Your task to perform on an android device: Add lg ultragear to the cart on ebay, then select checkout. Image 0: 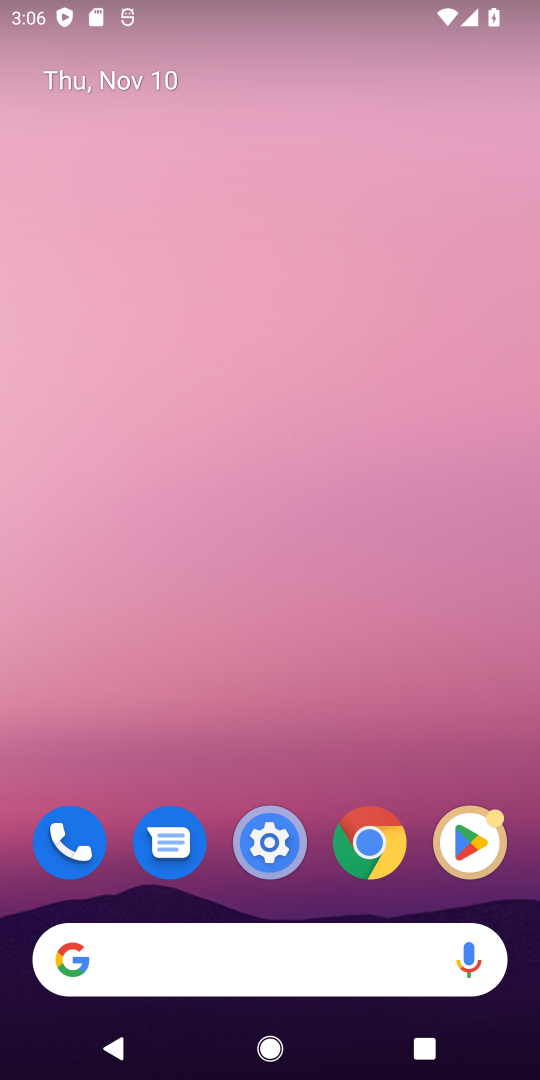
Step 0: click (156, 968)
Your task to perform on an android device: Add lg ultragear to the cart on ebay, then select checkout. Image 1: 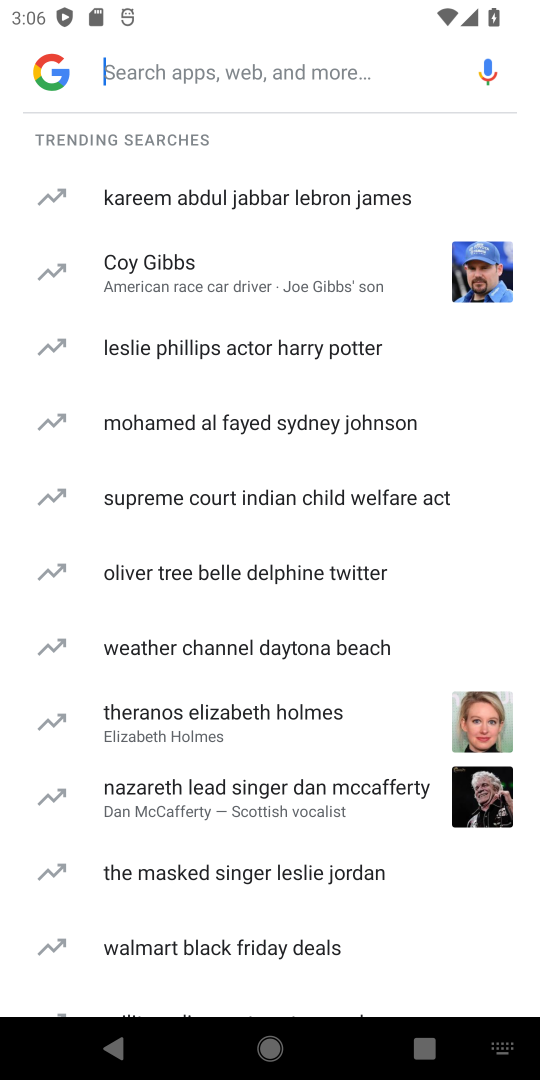
Step 1: type "ebay"
Your task to perform on an android device: Add lg ultragear to the cart on ebay, then select checkout. Image 2: 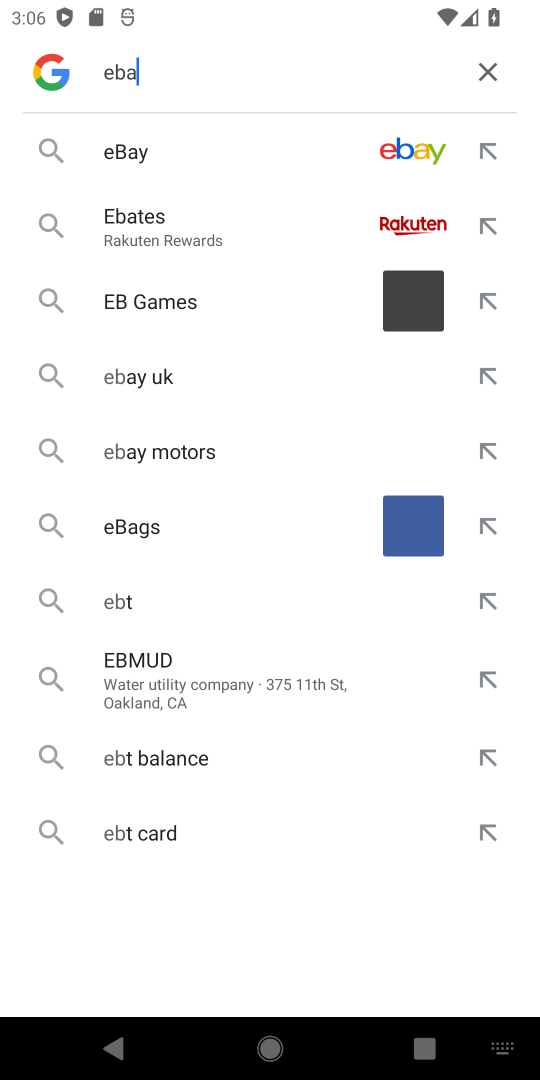
Step 2: press enter
Your task to perform on an android device: Add lg ultragear to the cart on ebay, then select checkout. Image 3: 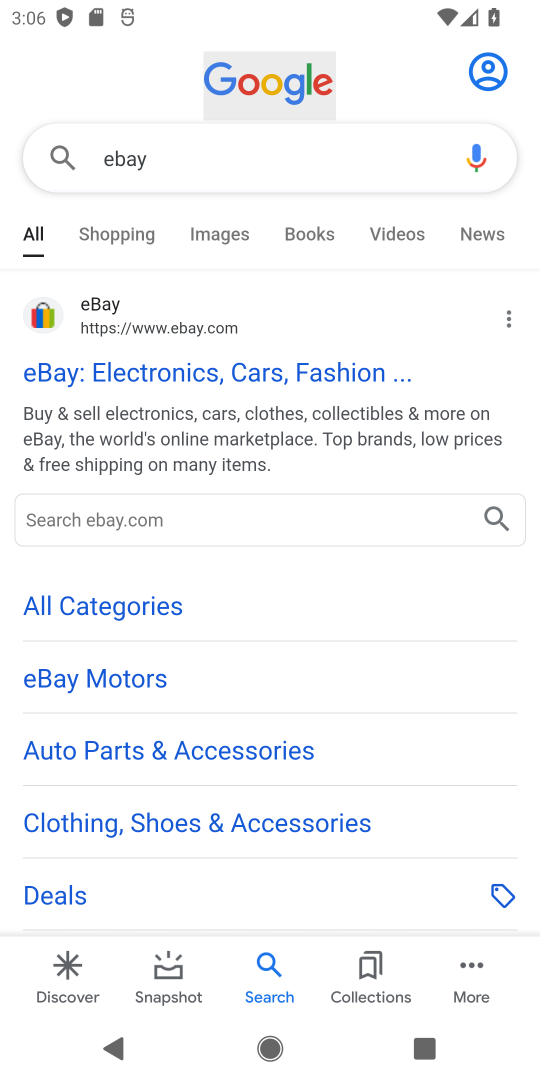
Step 3: click (235, 367)
Your task to perform on an android device: Add lg ultragear to the cart on ebay, then select checkout. Image 4: 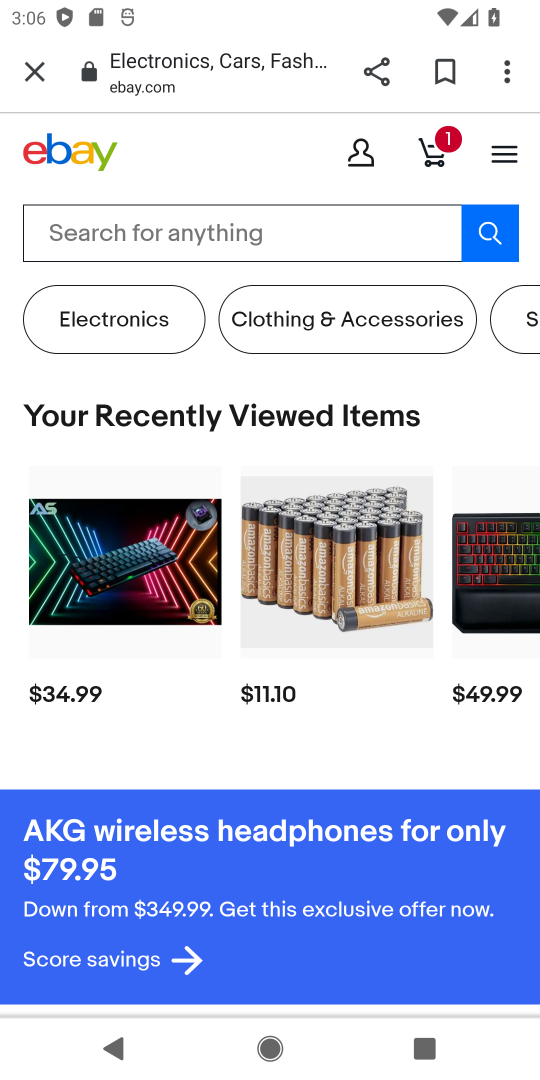
Step 4: click (252, 224)
Your task to perform on an android device: Add lg ultragear to the cart on ebay, then select checkout. Image 5: 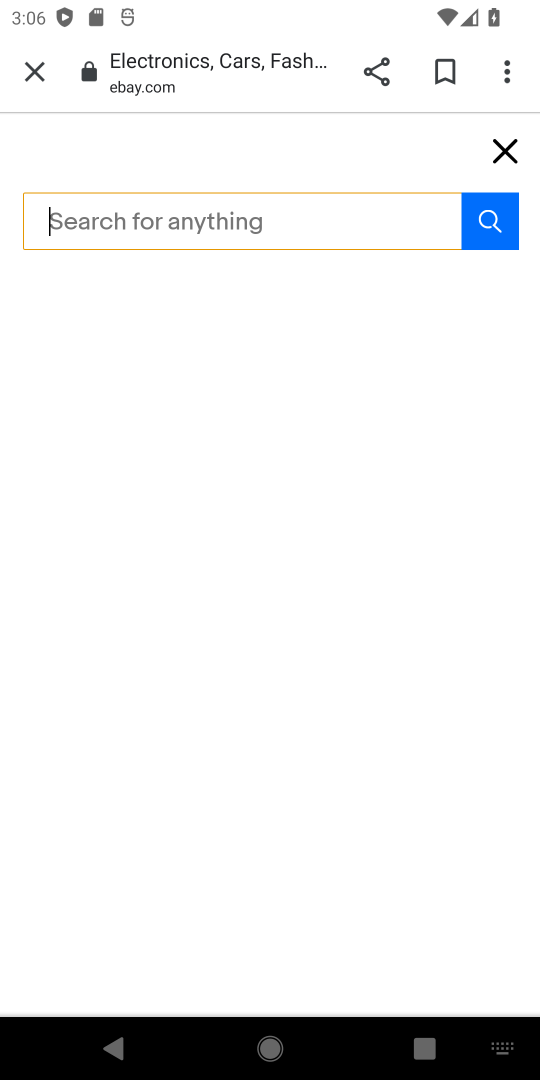
Step 5: type "lg ultragear "
Your task to perform on an android device: Add lg ultragear to the cart on ebay, then select checkout. Image 6: 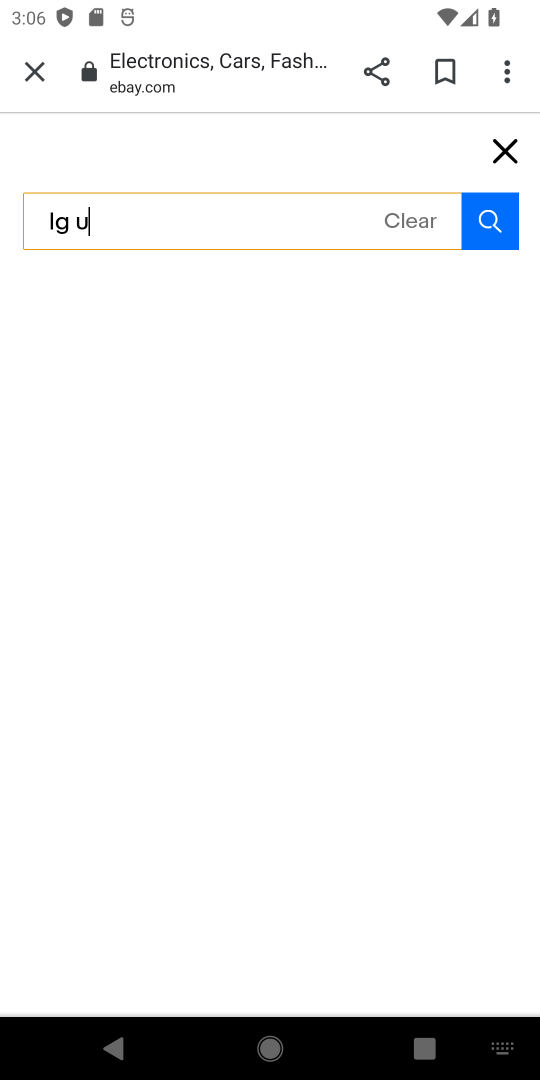
Step 6: press enter
Your task to perform on an android device: Add lg ultragear to the cart on ebay, then select checkout. Image 7: 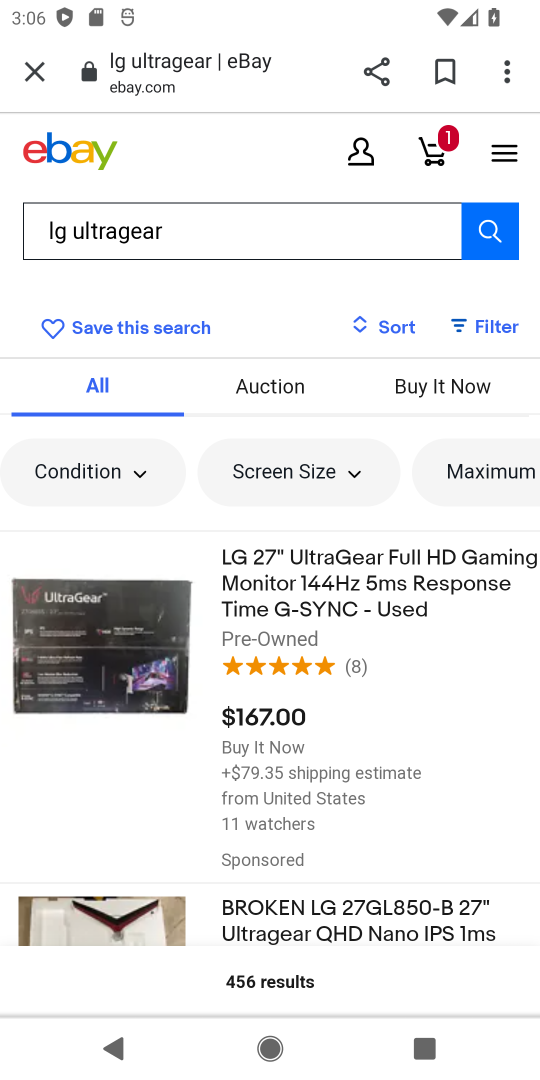
Step 7: click (337, 588)
Your task to perform on an android device: Add lg ultragear to the cart on ebay, then select checkout. Image 8: 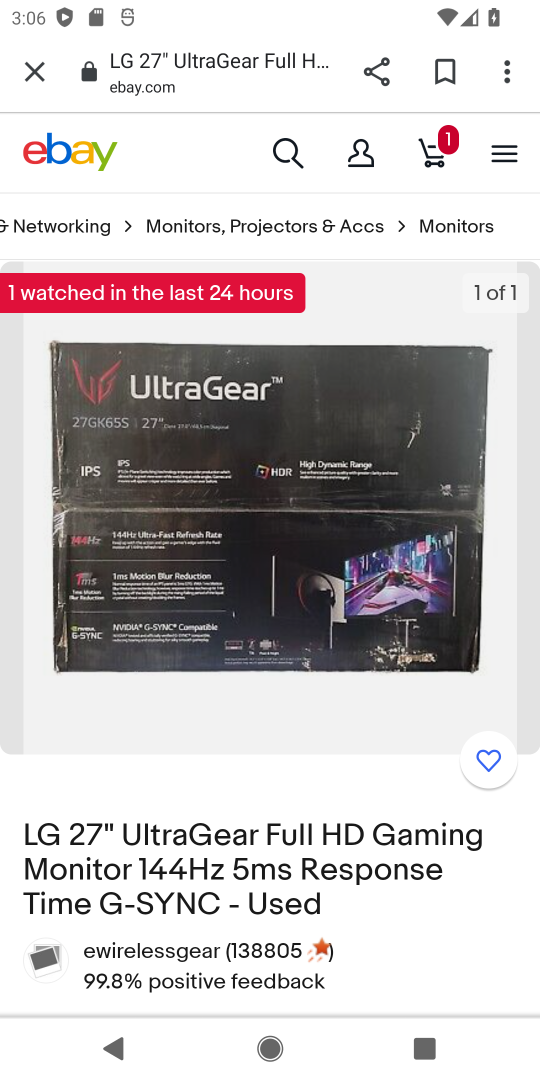
Step 8: drag from (291, 835) to (294, 347)
Your task to perform on an android device: Add lg ultragear to the cart on ebay, then select checkout. Image 9: 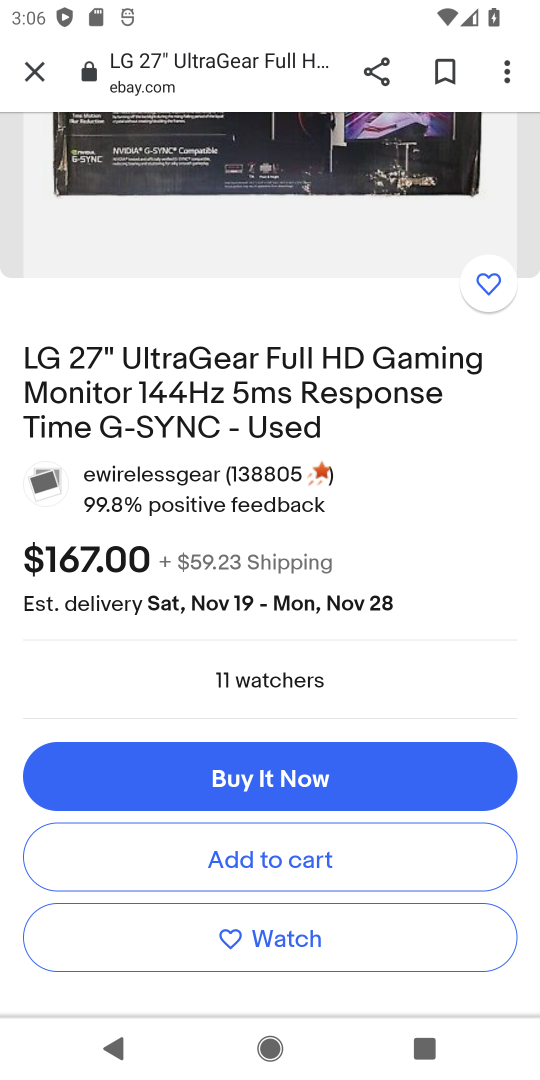
Step 9: click (327, 865)
Your task to perform on an android device: Add lg ultragear to the cart on ebay, then select checkout. Image 10: 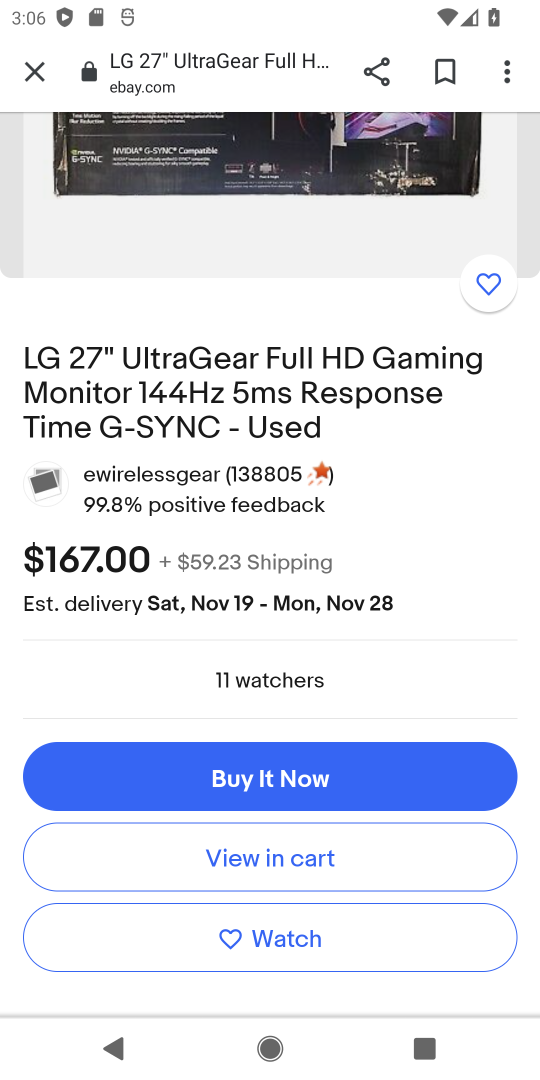
Step 10: click (296, 845)
Your task to perform on an android device: Add lg ultragear to the cart on ebay, then select checkout. Image 11: 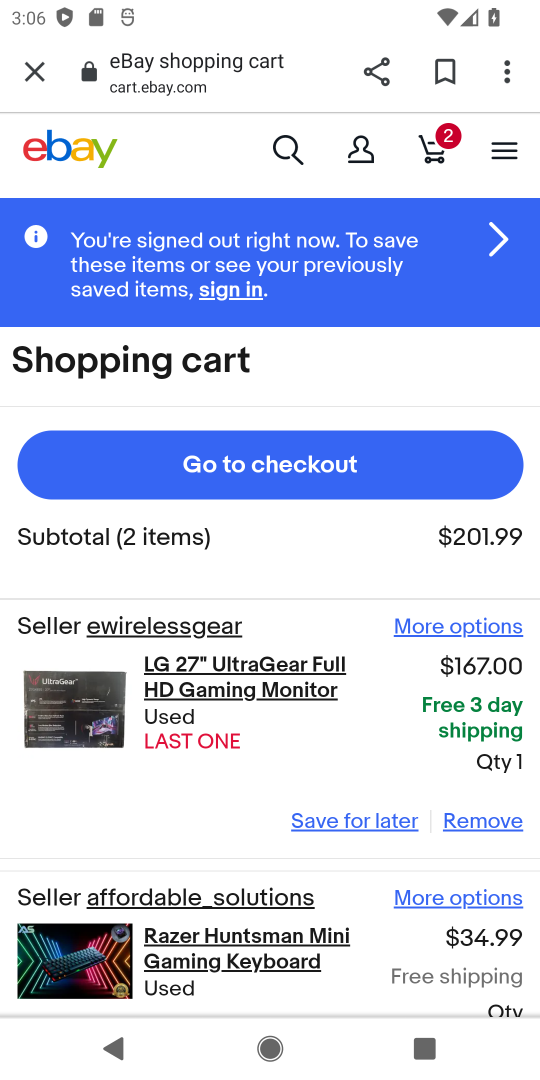
Step 11: click (327, 462)
Your task to perform on an android device: Add lg ultragear to the cart on ebay, then select checkout. Image 12: 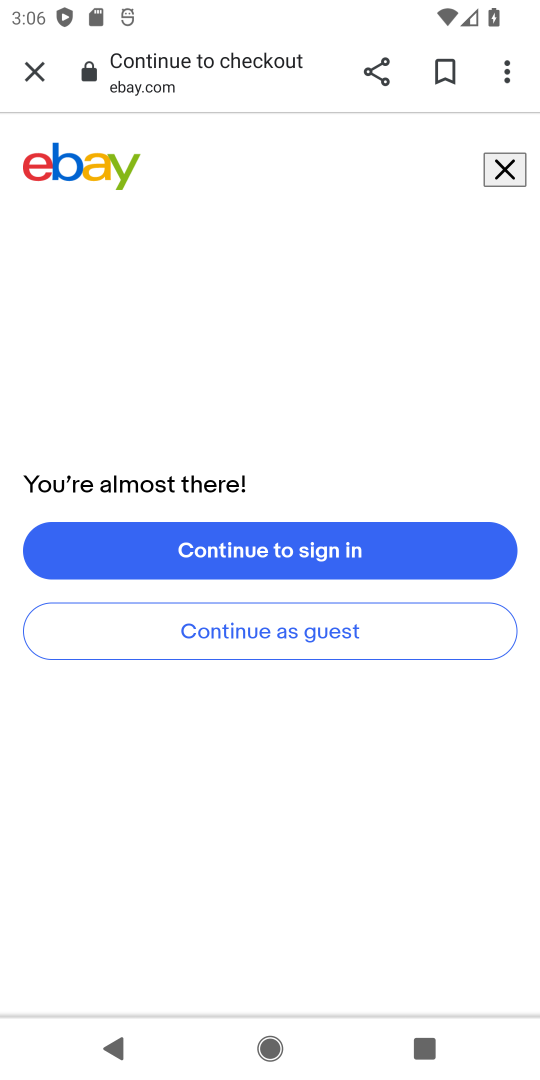
Step 12: task complete